Your task to perform on an android device: Go to network settings Image 0: 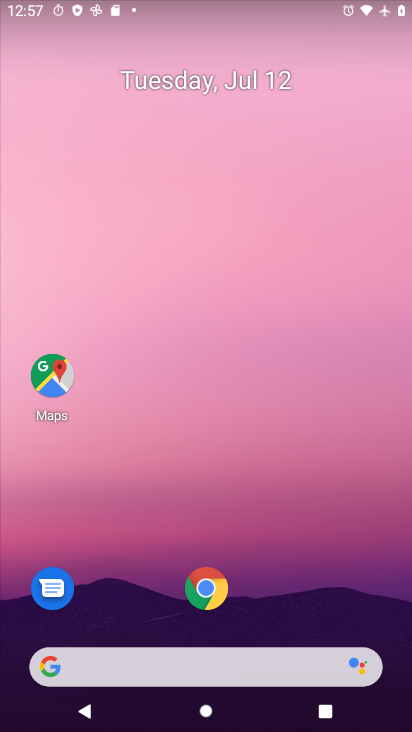
Step 0: press home button
Your task to perform on an android device: Go to network settings Image 1: 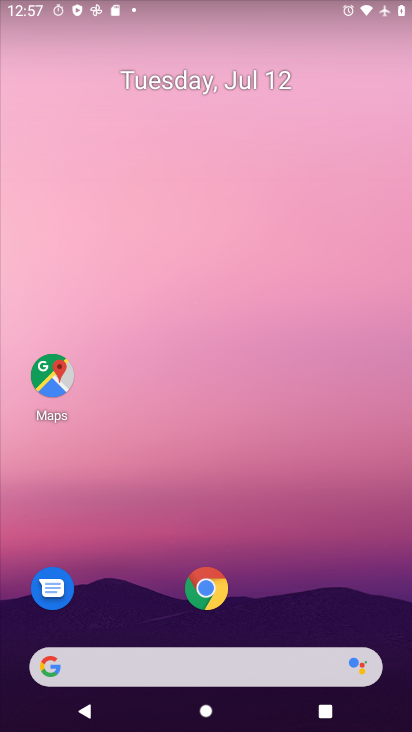
Step 1: drag from (183, 620) to (259, 82)
Your task to perform on an android device: Go to network settings Image 2: 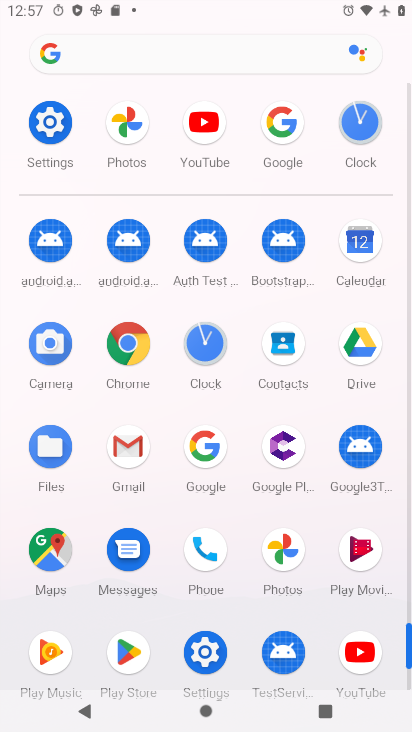
Step 2: click (48, 118)
Your task to perform on an android device: Go to network settings Image 3: 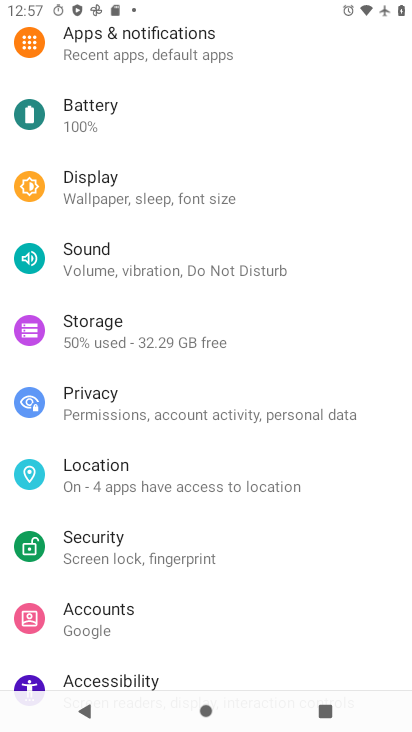
Step 3: drag from (214, 80) to (266, 650)
Your task to perform on an android device: Go to network settings Image 4: 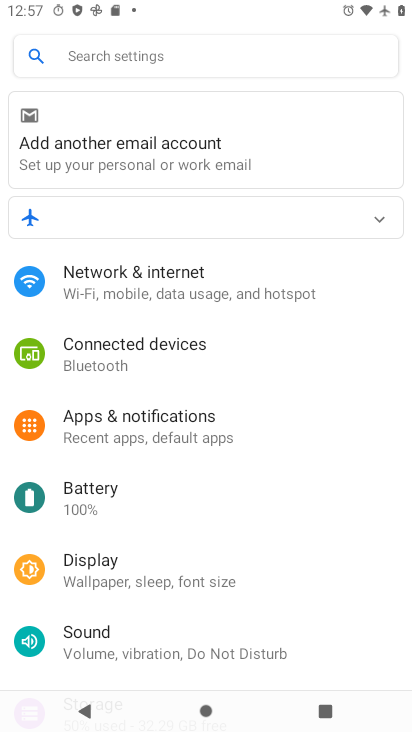
Step 4: click (186, 292)
Your task to perform on an android device: Go to network settings Image 5: 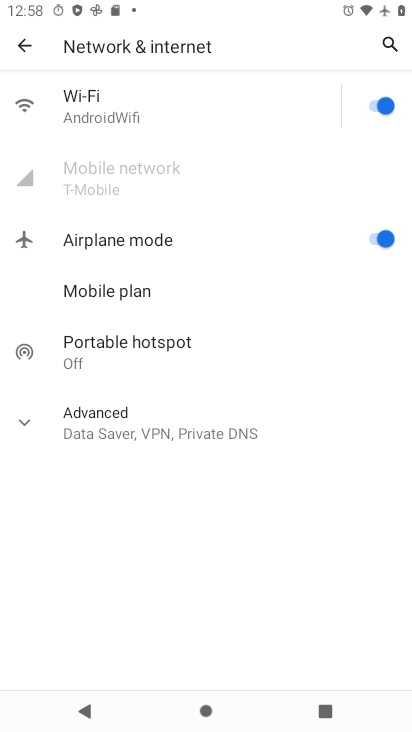
Step 5: task complete